Your task to perform on an android device: Go to Yahoo.com Image 0: 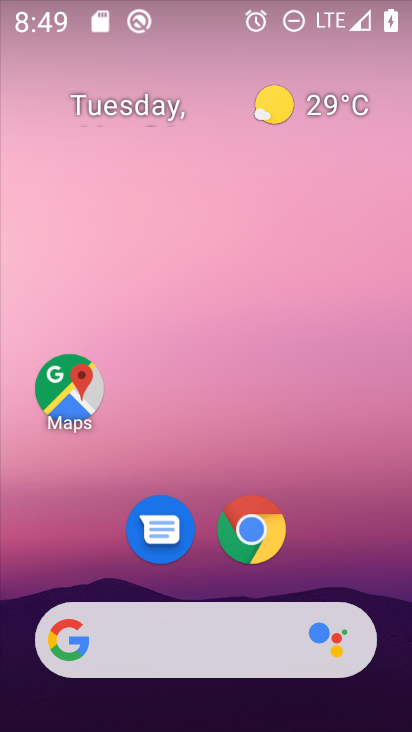
Step 0: drag from (397, 610) to (217, 21)
Your task to perform on an android device: Go to Yahoo.com Image 1: 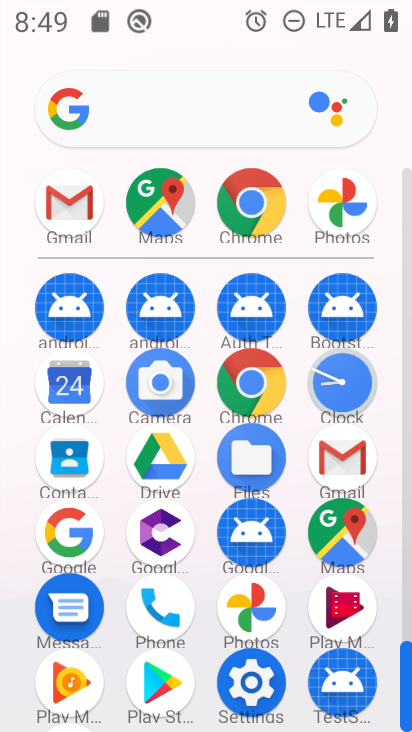
Step 1: click (260, 212)
Your task to perform on an android device: Go to Yahoo.com Image 2: 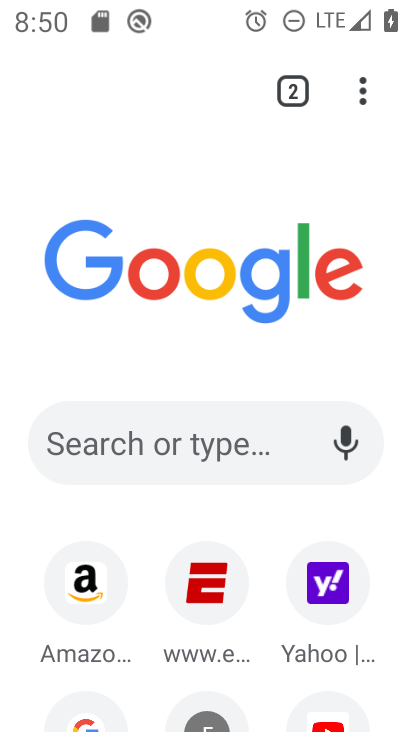
Step 2: click (319, 605)
Your task to perform on an android device: Go to Yahoo.com Image 3: 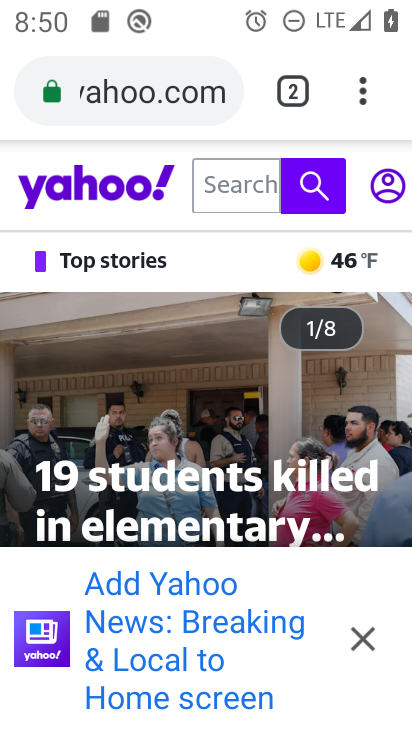
Step 3: task complete